Your task to perform on an android device: turn off javascript in the chrome app Image 0: 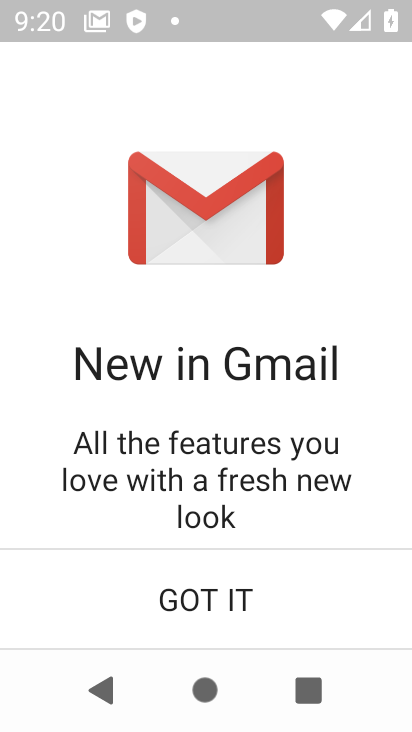
Step 0: task impossible